Your task to perform on an android device: turn off sleep mode Image 0: 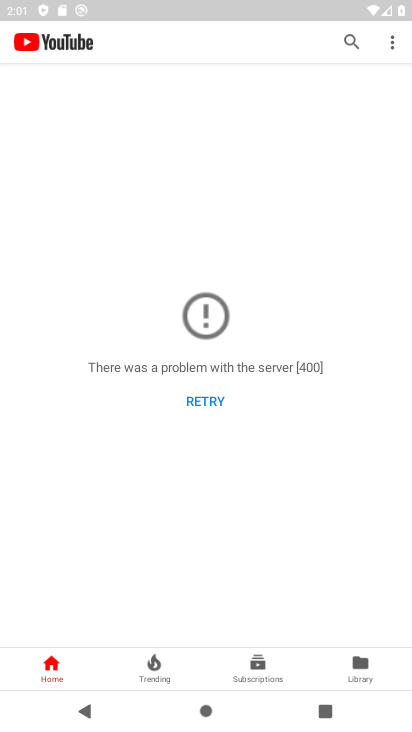
Step 0: press home button
Your task to perform on an android device: turn off sleep mode Image 1: 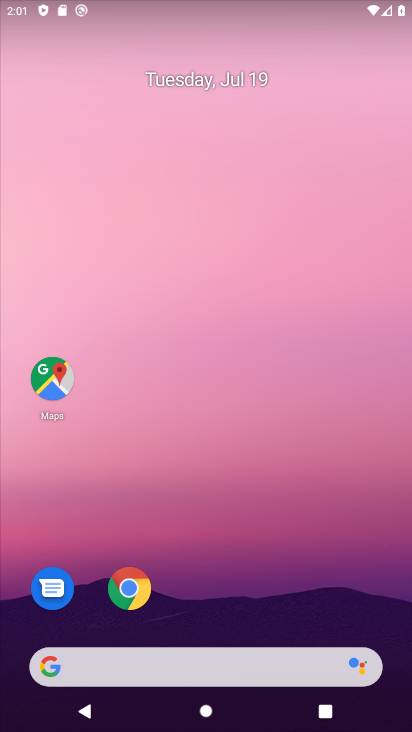
Step 1: drag from (253, 543) to (252, 139)
Your task to perform on an android device: turn off sleep mode Image 2: 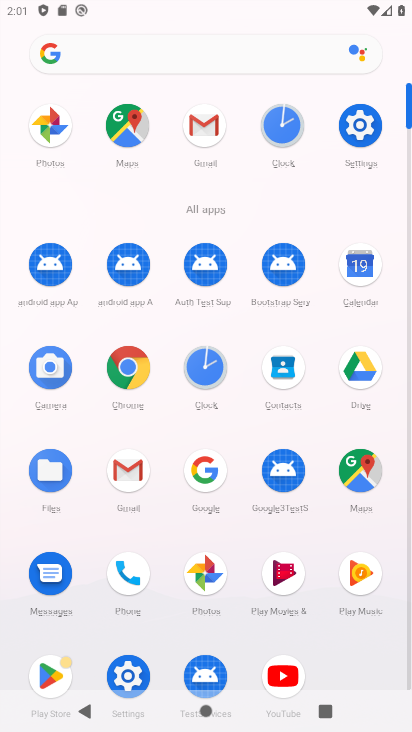
Step 2: drag from (356, 118) to (91, 175)
Your task to perform on an android device: turn off sleep mode Image 3: 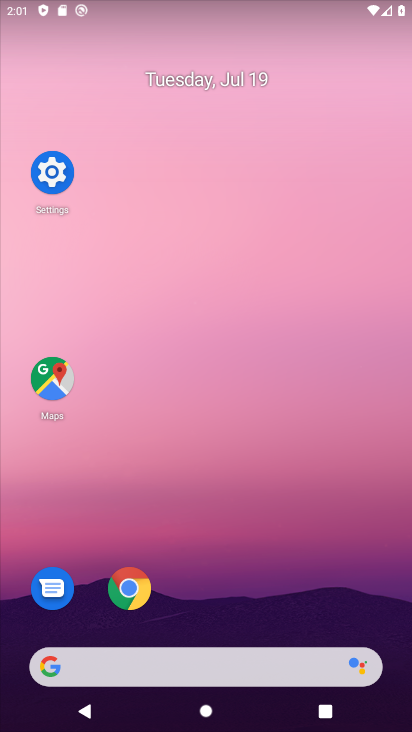
Step 3: click (67, 175)
Your task to perform on an android device: turn off sleep mode Image 4: 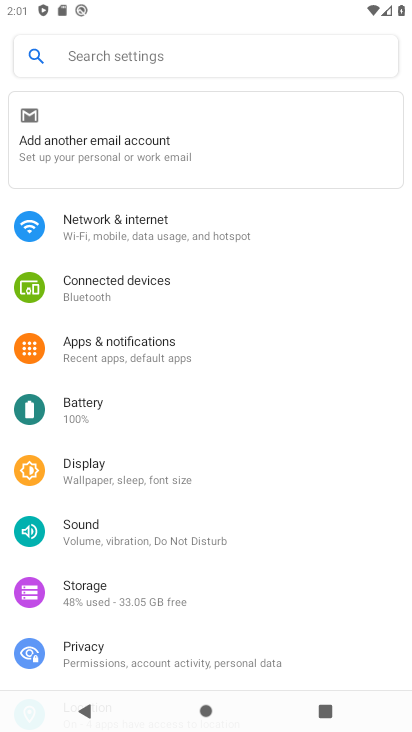
Step 4: click (192, 477)
Your task to perform on an android device: turn off sleep mode Image 5: 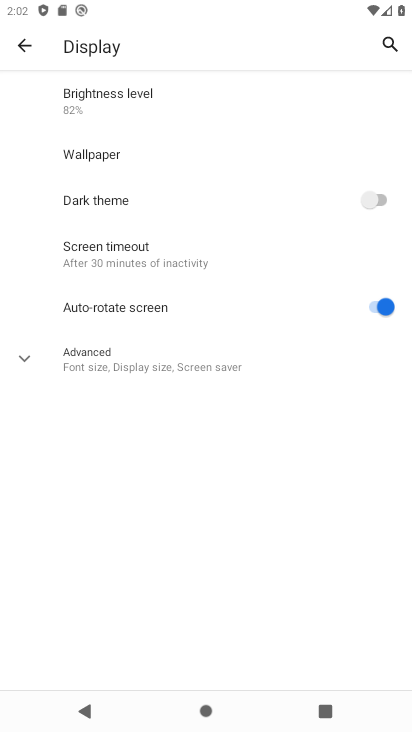
Step 5: click (146, 247)
Your task to perform on an android device: turn off sleep mode Image 6: 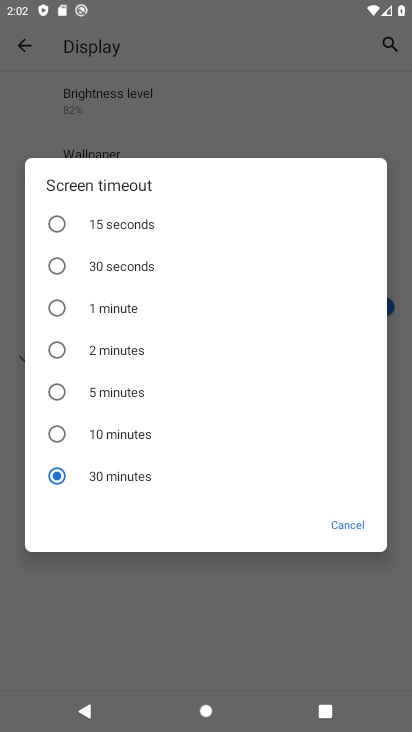
Step 6: task complete